Your task to perform on an android device: Do I have any events today? Image 0: 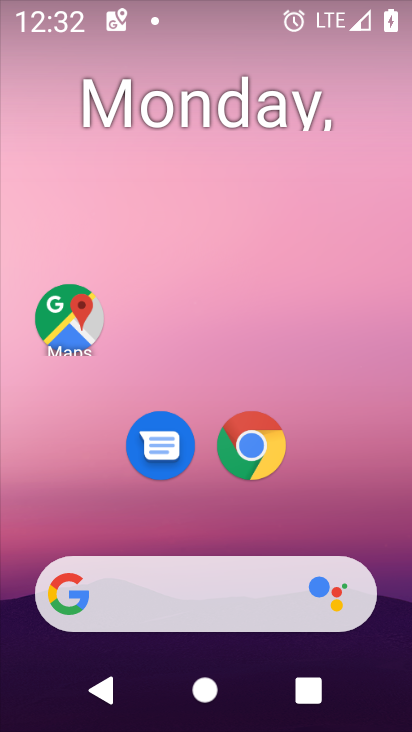
Step 0: drag from (205, 524) to (239, 103)
Your task to perform on an android device: Do I have any events today? Image 1: 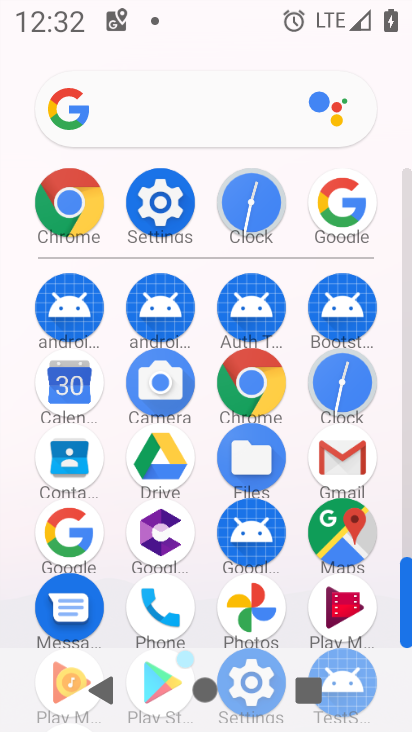
Step 1: click (62, 392)
Your task to perform on an android device: Do I have any events today? Image 2: 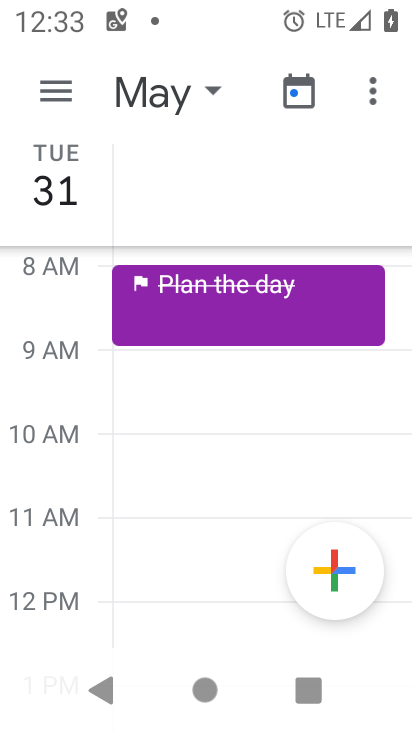
Step 2: click (190, 94)
Your task to perform on an android device: Do I have any events today? Image 3: 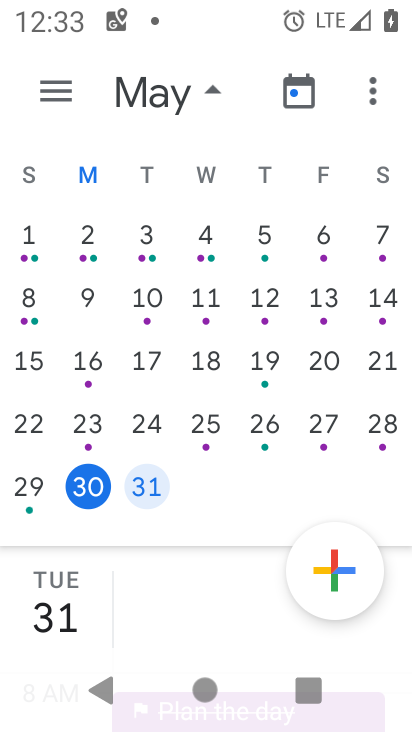
Step 3: drag from (160, 641) to (259, 333)
Your task to perform on an android device: Do I have any events today? Image 4: 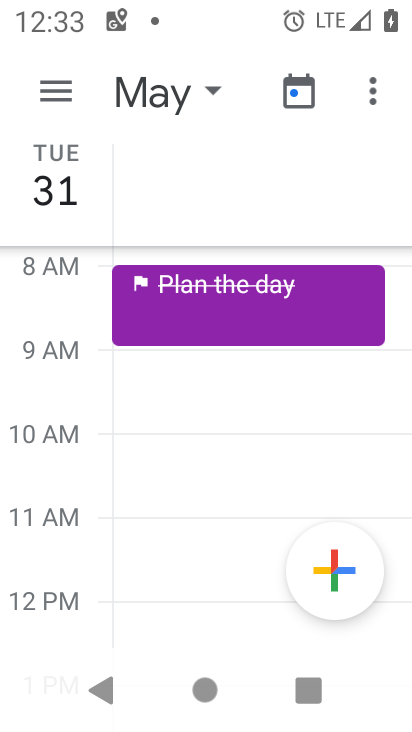
Step 4: click (187, 85)
Your task to perform on an android device: Do I have any events today? Image 5: 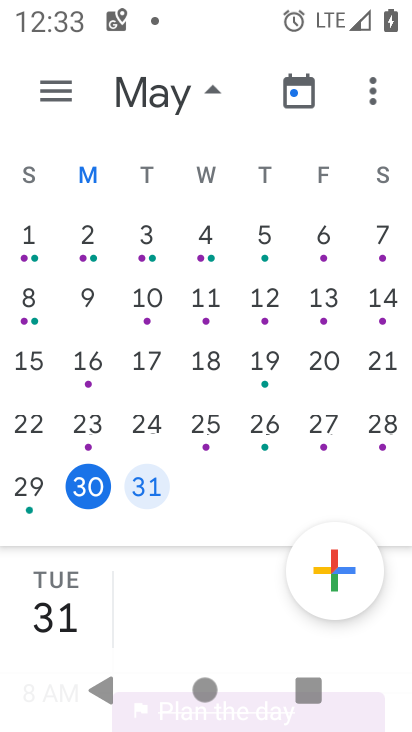
Step 5: click (93, 479)
Your task to perform on an android device: Do I have any events today? Image 6: 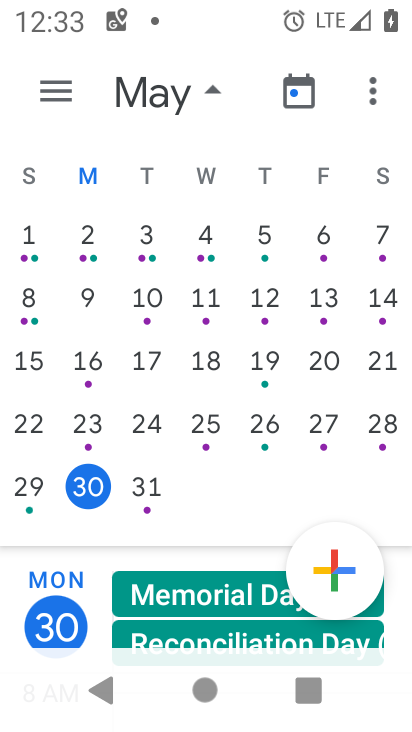
Step 6: task complete